Your task to perform on an android device: turn off smart reply in the gmail app Image 0: 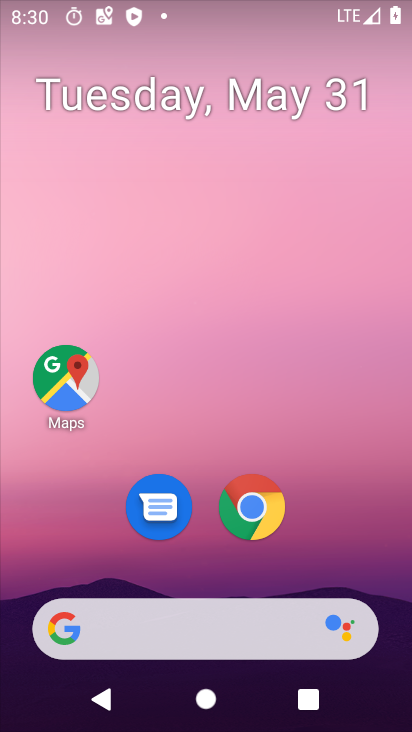
Step 0: drag from (38, 630) to (217, 219)
Your task to perform on an android device: turn off smart reply in the gmail app Image 1: 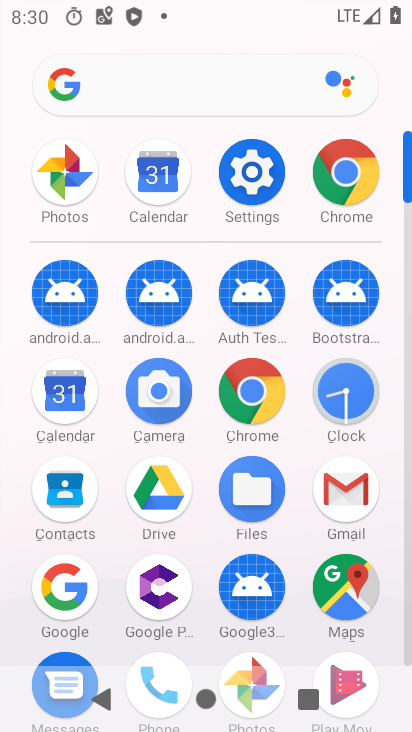
Step 1: click (342, 502)
Your task to perform on an android device: turn off smart reply in the gmail app Image 2: 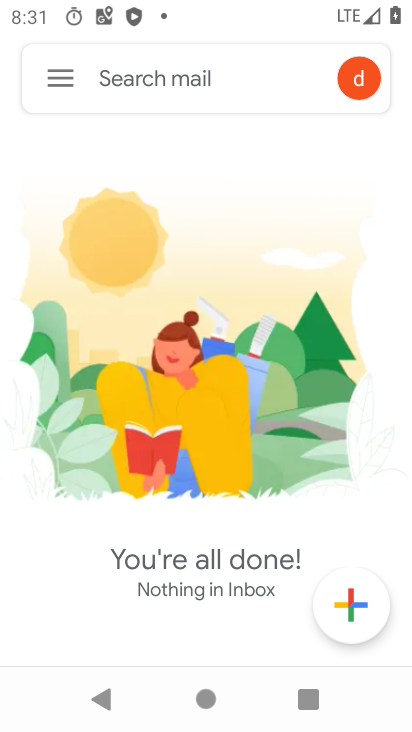
Step 2: click (52, 75)
Your task to perform on an android device: turn off smart reply in the gmail app Image 3: 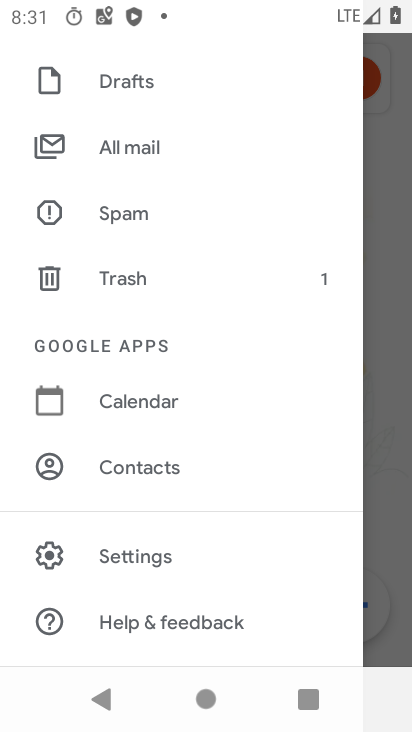
Step 3: click (114, 553)
Your task to perform on an android device: turn off smart reply in the gmail app Image 4: 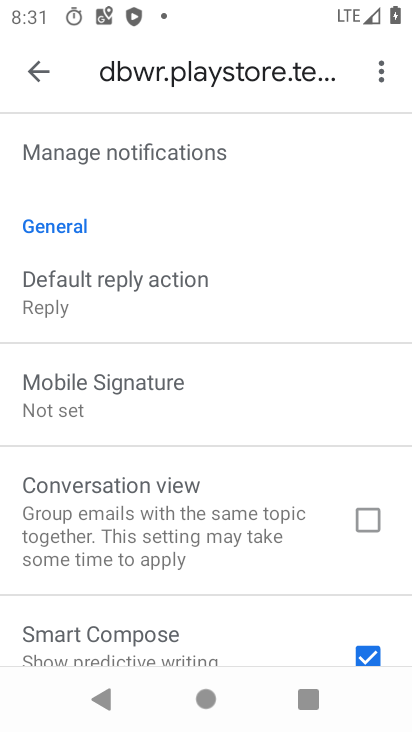
Step 4: drag from (19, 562) to (291, 181)
Your task to perform on an android device: turn off smart reply in the gmail app Image 5: 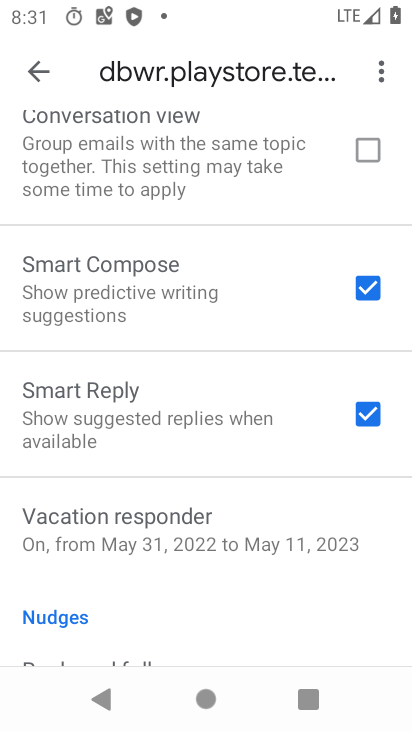
Step 5: click (371, 423)
Your task to perform on an android device: turn off smart reply in the gmail app Image 6: 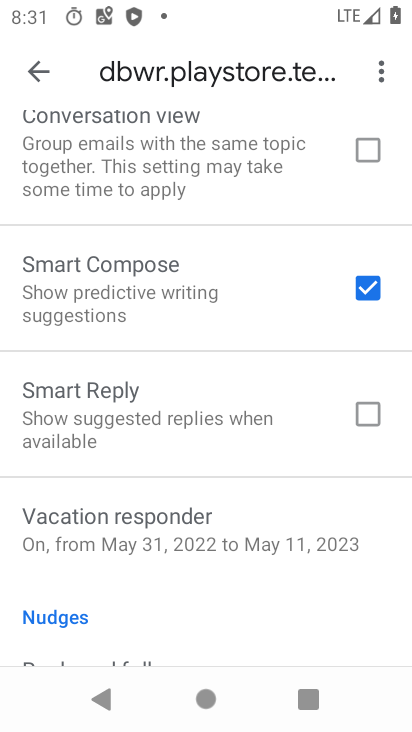
Step 6: task complete